Your task to perform on an android device: Is it going to rain this weekend? Image 0: 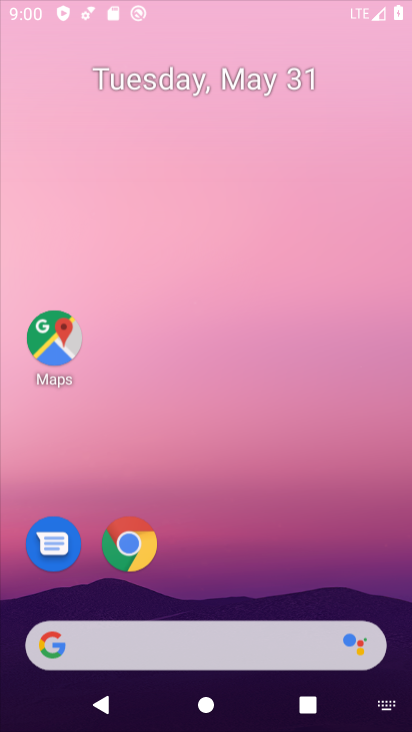
Step 0: click (327, 159)
Your task to perform on an android device: Is it going to rain this weekend? Image 1: 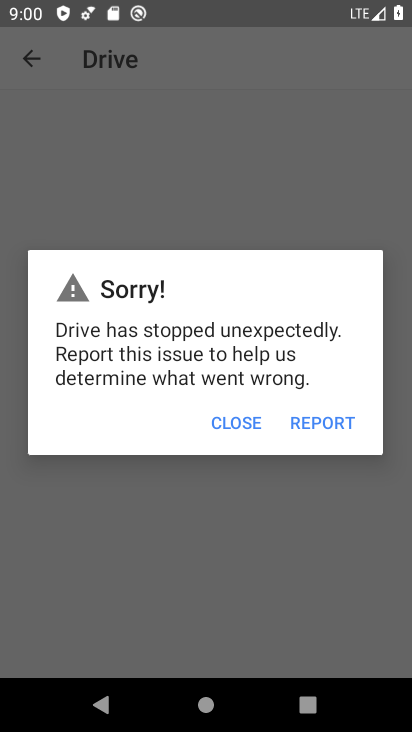
Step 1: press home button
Your task to perform on an android device: Is it going to rain this weekend? Image 2: 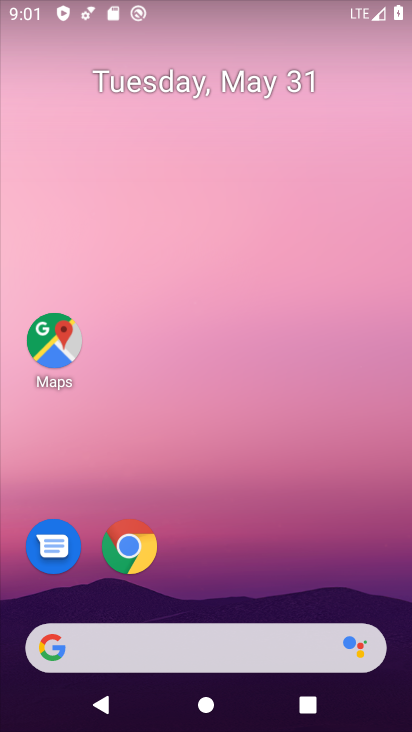
Step 2: drag from (2, 229) to (339, 246)
Your task to perform on an android device: Is it going to rain this weekend? Image 3: 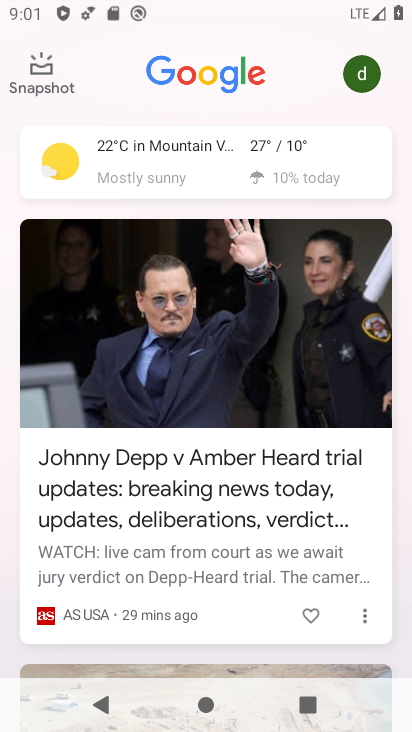
Step 3: click (280, 147)
Your task to perform on an android device: Is it going to rain this weekend? Image 4: 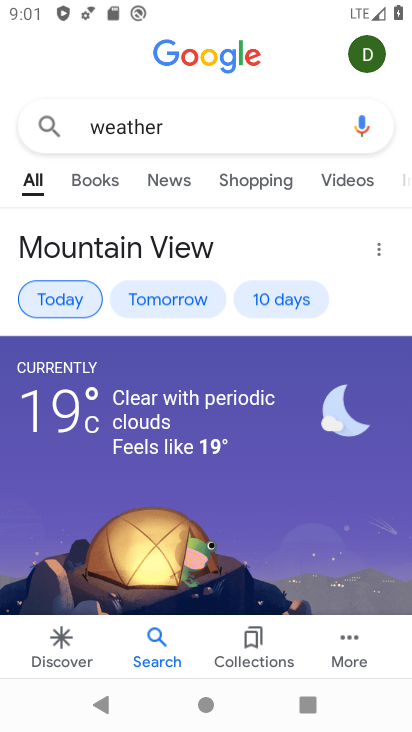
Step 4: click (288, 297)
Your task to perform on an android device: Is it going to rain this weekend? Image 5: 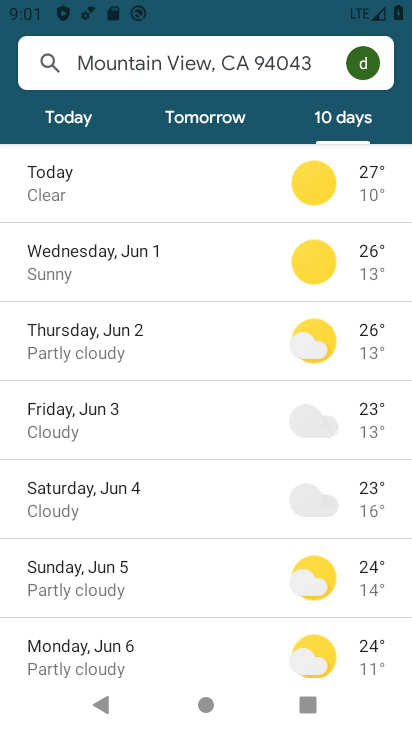
Step 5: task complete